Your task to perform on an android device: Search for Mexican restaurants on Maps Image 0: 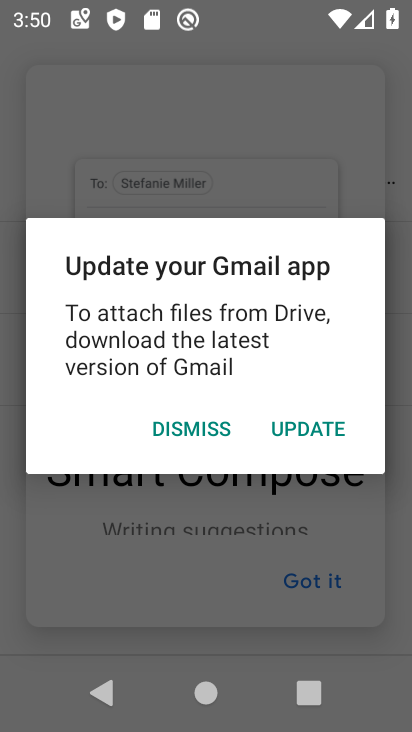
Step 0: press home button
Your task to perform on an android device: Search for Mexican restaurants on Maps Image 1: 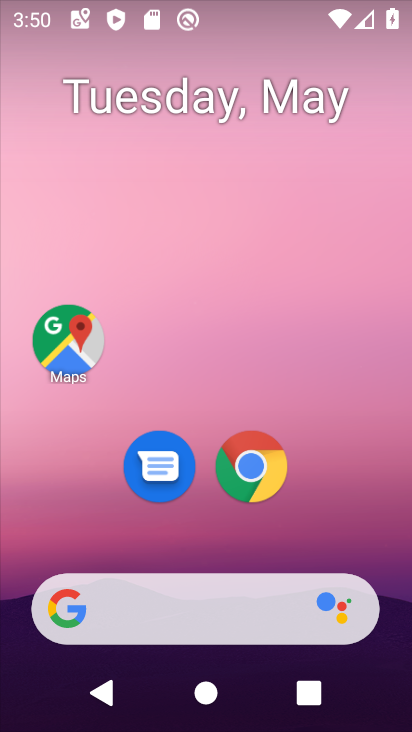
Step 1: click (63, 339)
Your task to perform on an android device: Search for Mexican restaurants on Maps Image 2: 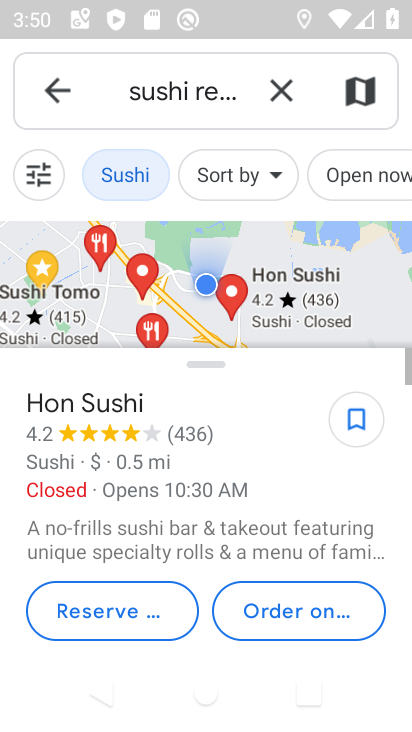
Step 2: click (279, 99)
Your task to perform on an android device: Search for Mexican restaurants on Maps Image 3: 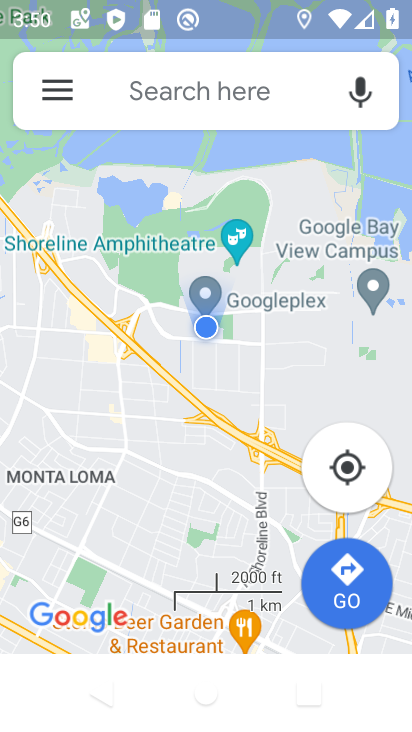
Step 3: click (202, 97)
Your task to perform on an android device: Search for Mexican restaurants on Maps Image 4: 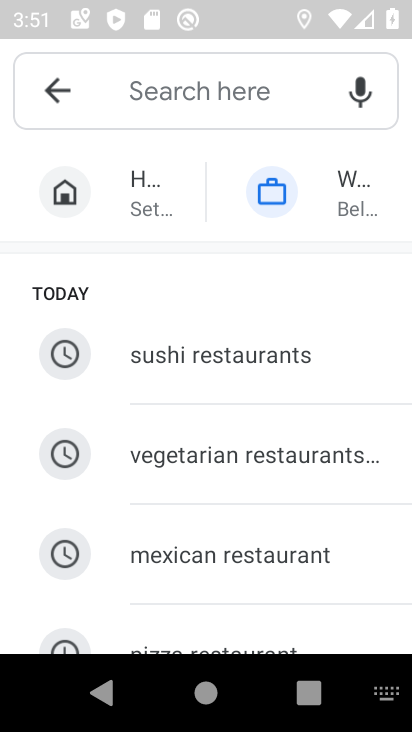
Step 4: click (265, 580)
Your task to perform on an android device: Search for Mexican restaurants on Maps Image 5: 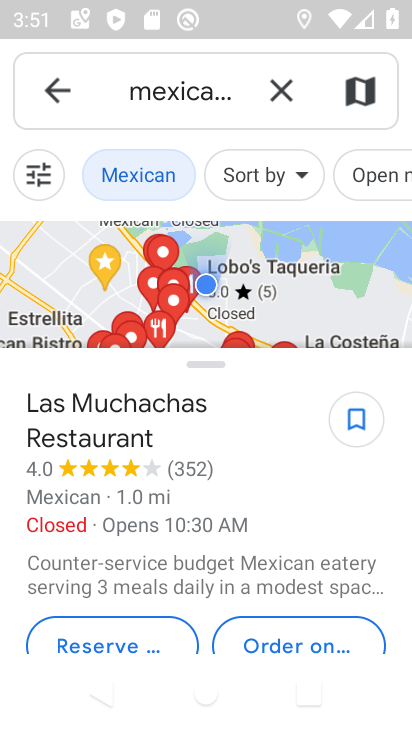
Step 5: task complete